Your task to perform on an android device: Show me productivity apps on the Play Store Image 0: 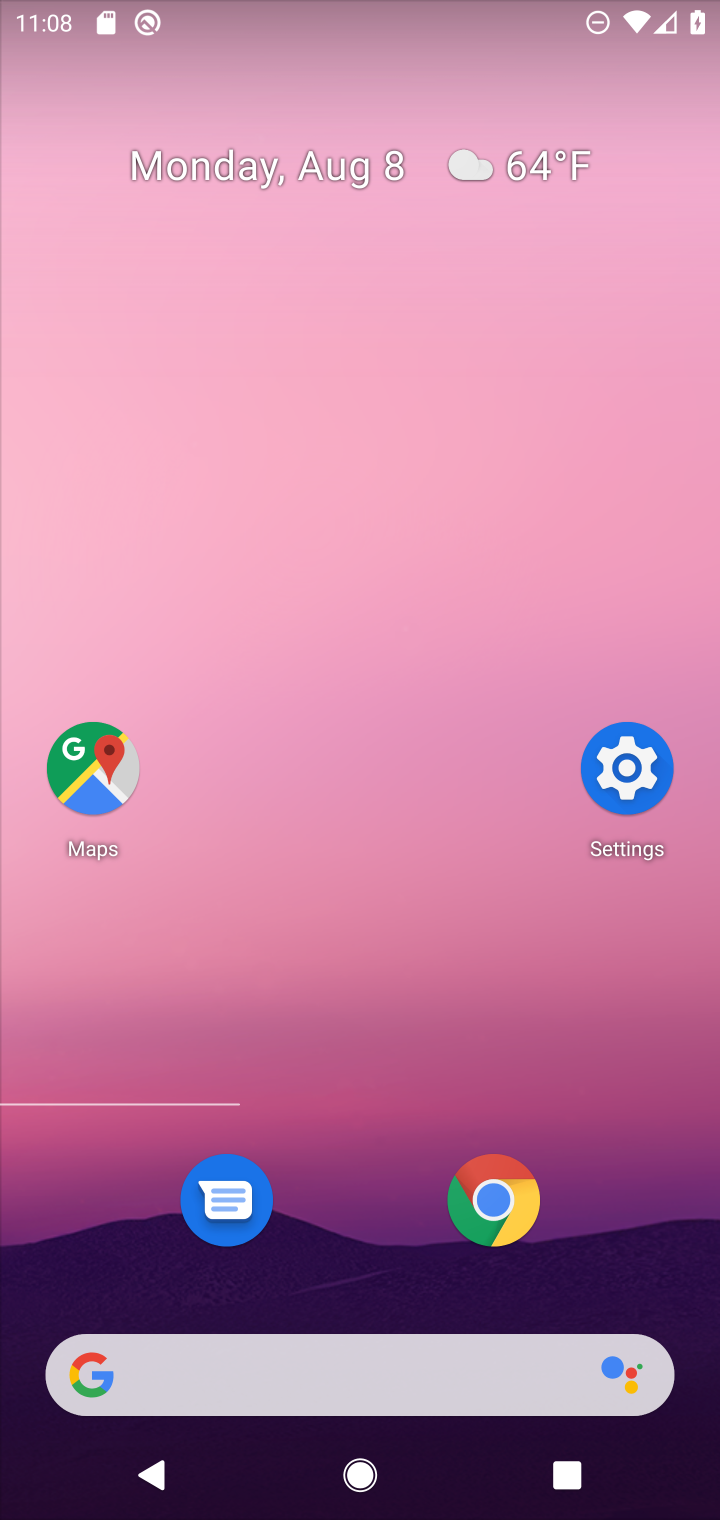
Step 0: press home button
Your task to perform on an android device: Show me productivity apps on the Play Store Image 1: 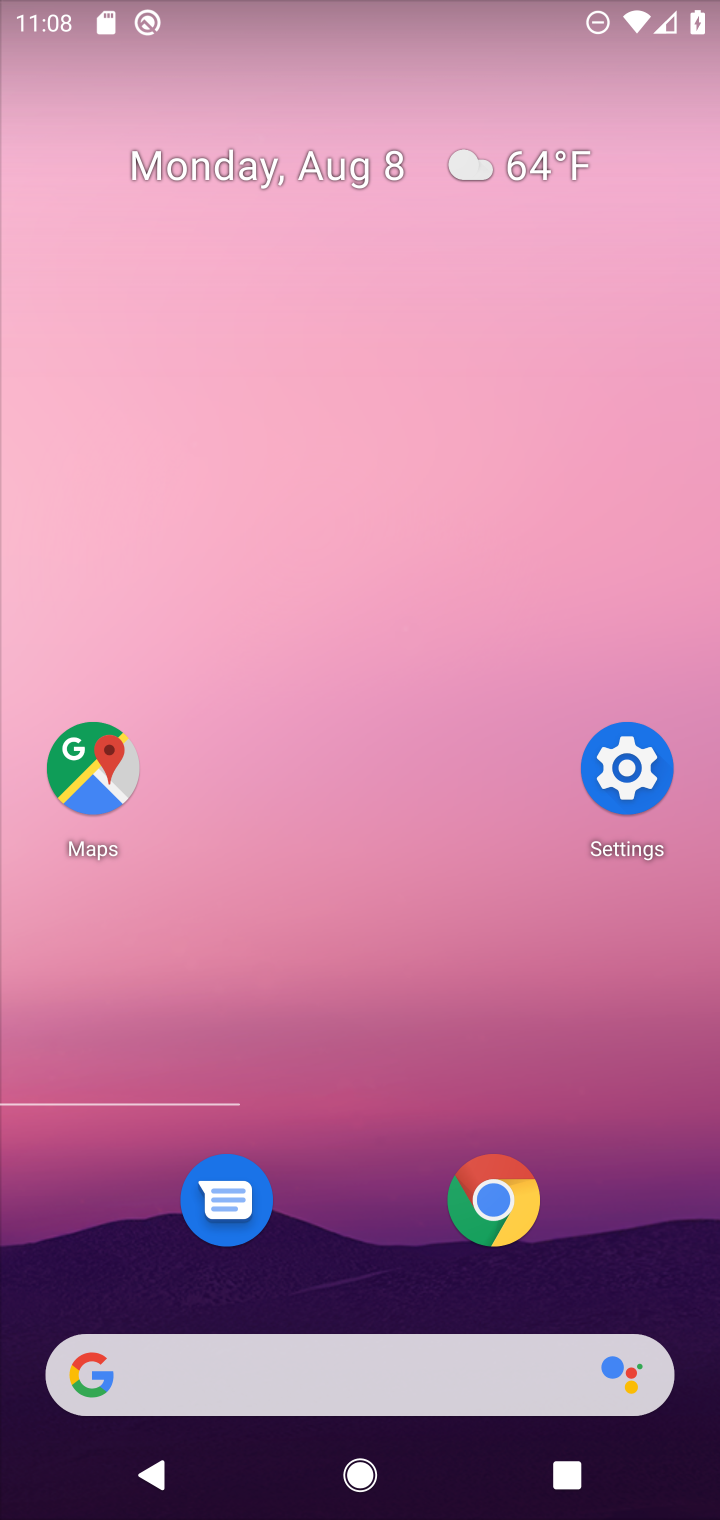
Step 1: drag from (262, 1376) to (408, 507)
Your task to perform on an android device: Show me productivity apps on the Play Store Image 2: 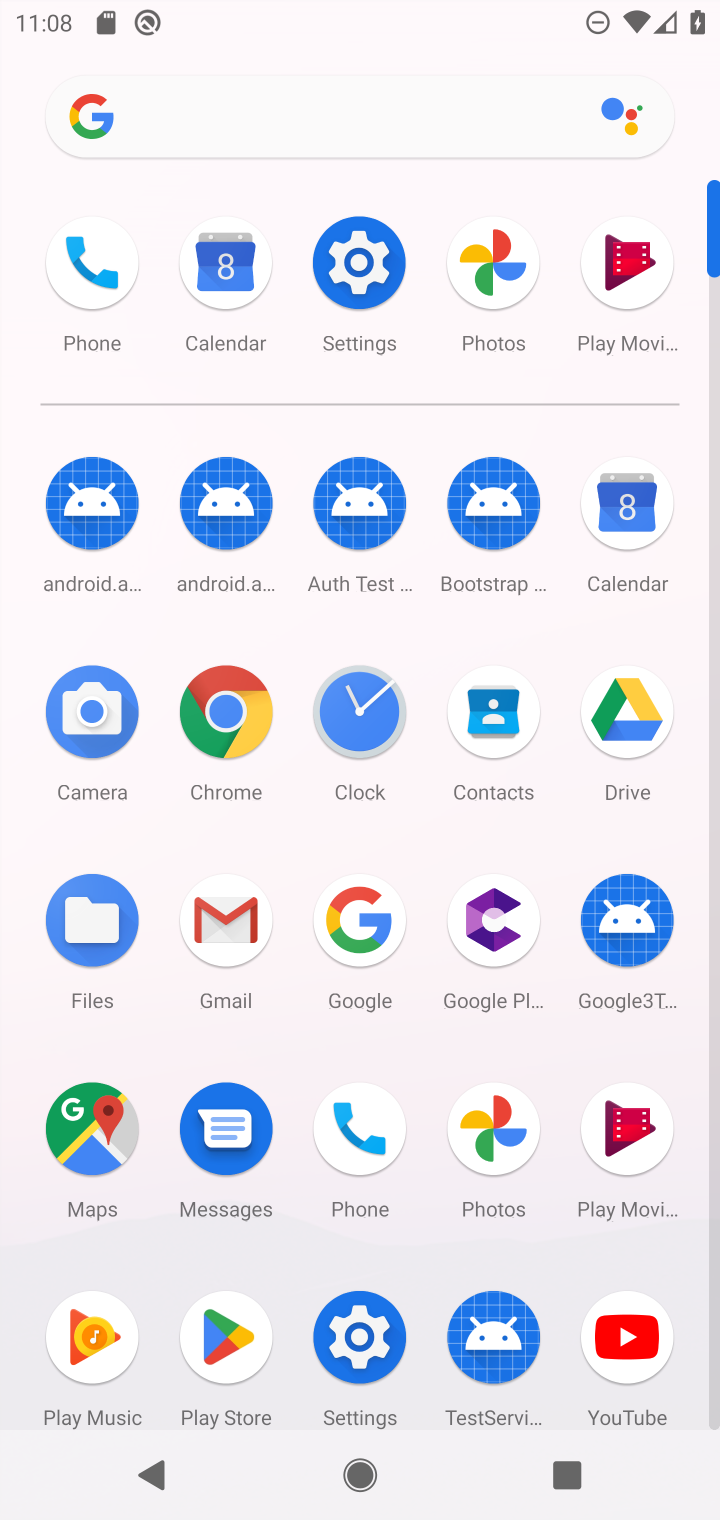
Step 2: click (225, 1341)
Your task to perform on an android device: Show me productivity apps on the Play Store Image 3: 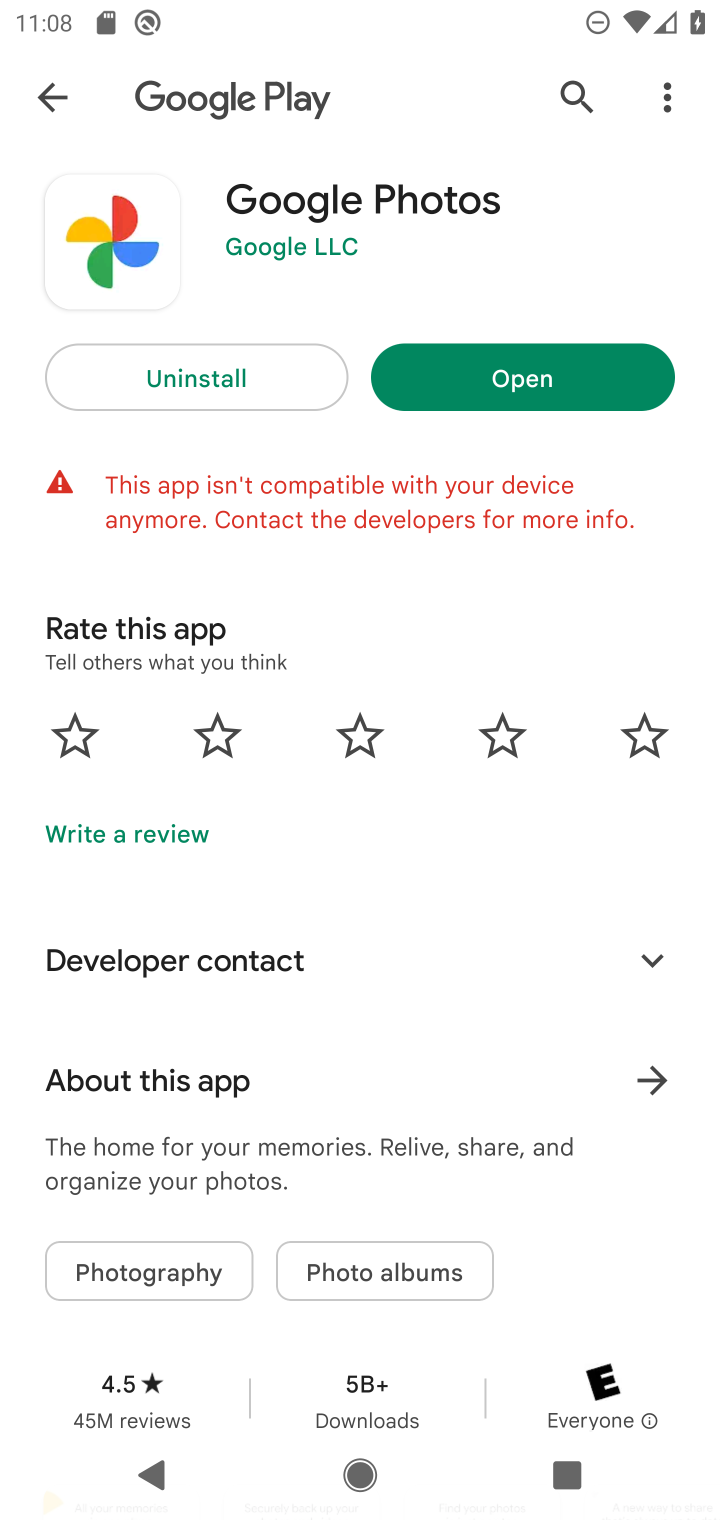
Step 3: click (50, 76)
Your task to perform on an android device: Show me productivity apps on the Play Store Image 4: 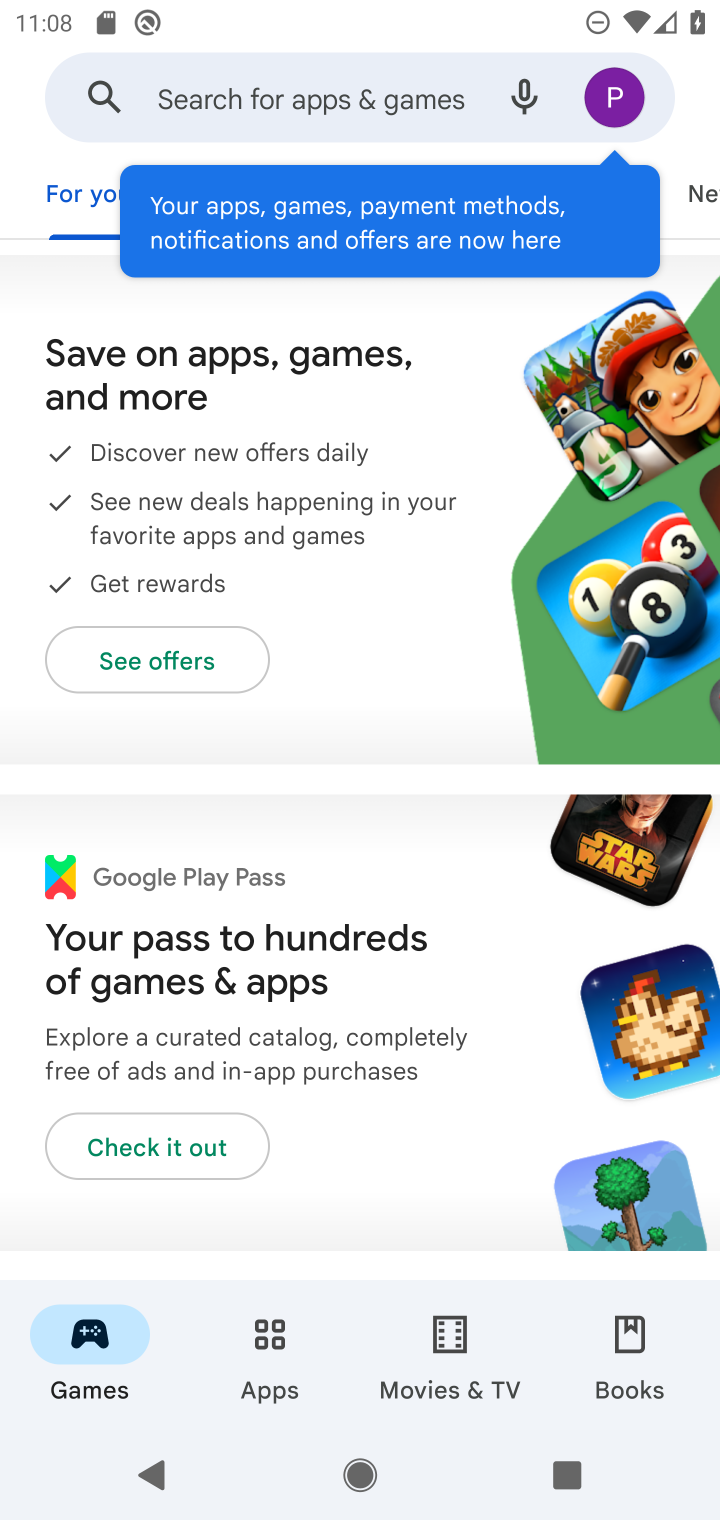
Step 4: click (266, 1342)
Your task to perform on an android device: Show me productivity apps on the Play Store Image 5: 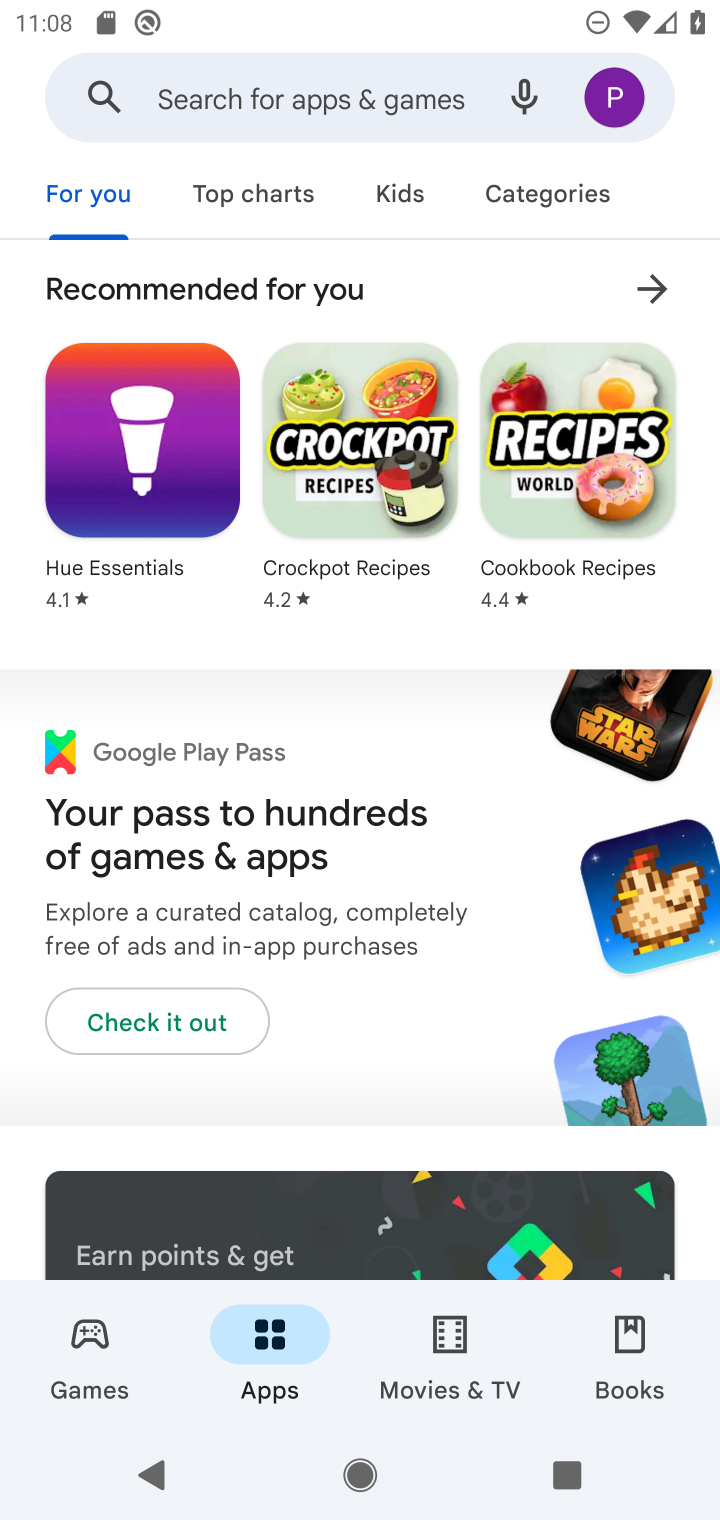
Step 5: click (556, 196)
Your task to perform on an android device: Show me productivity apps on the Play Store Image 6: 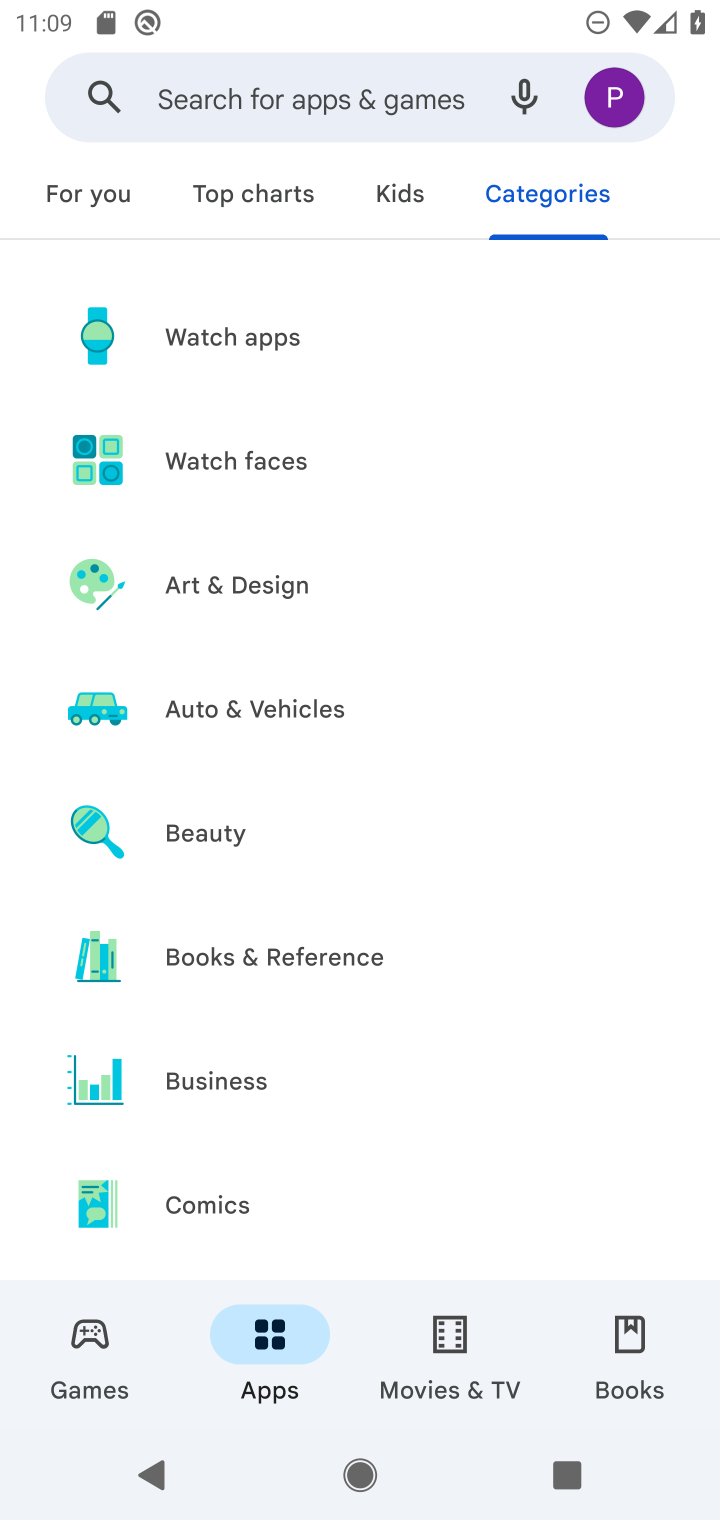
Step 6: drag from (423, 1194) to (523, 0)
Your task to perform on an android device: Show me productivity apps on the Play Store Image 7: 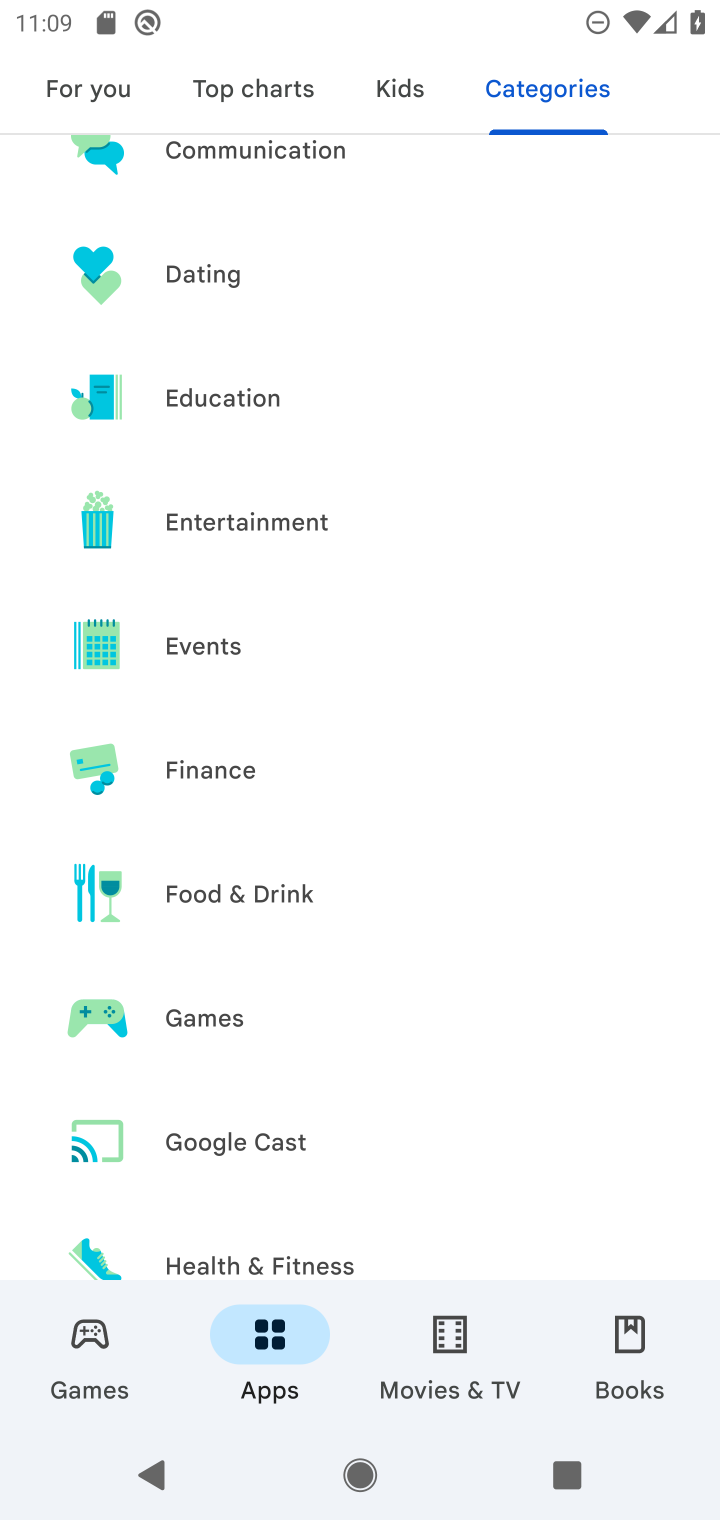
Step 7: drag from (371, 1115) to (435, 246)
Your task to perform on an android device: Show me productivity apps on the Play Store Image 8: 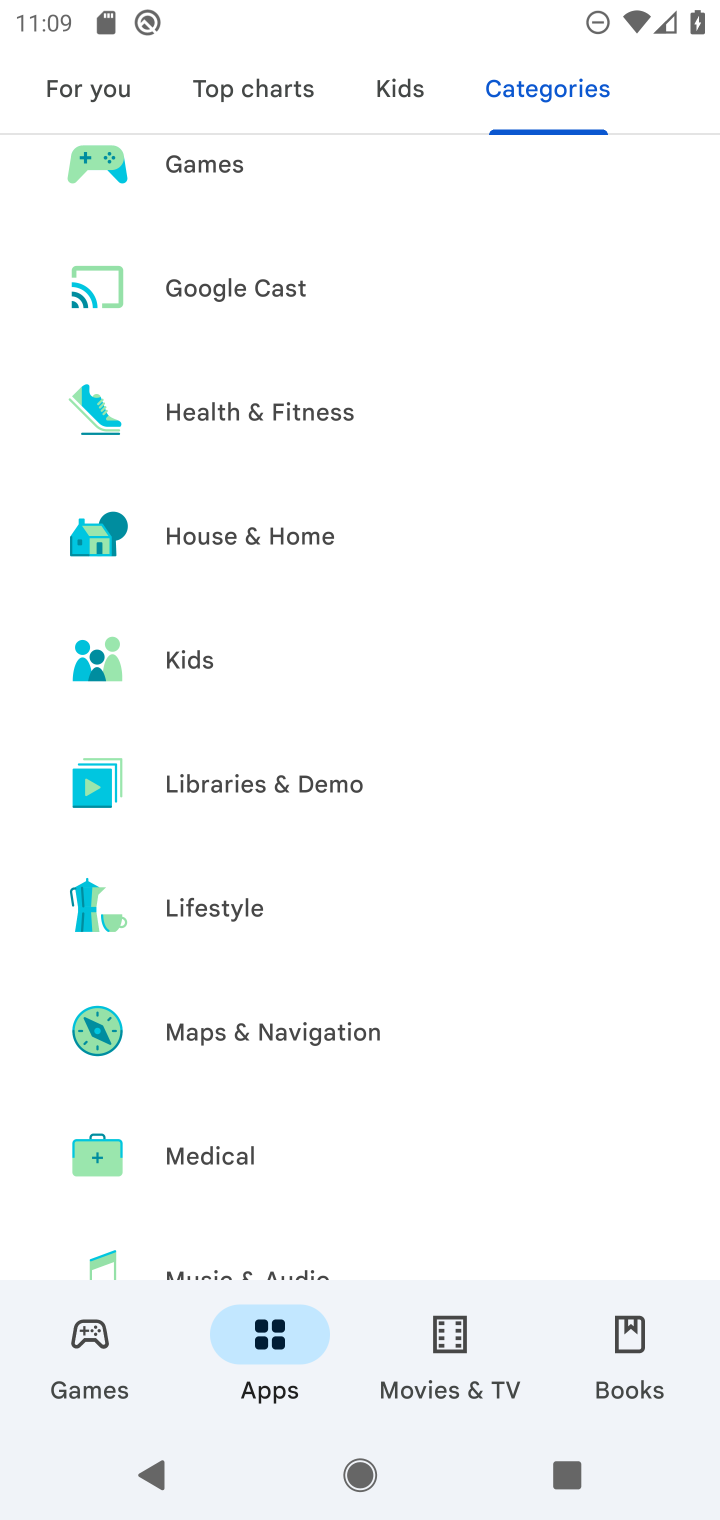
Step 8: drag from (435, 1142) to (501, 212)
Your task to perform on an android device: Show me productivity apps on the Play Store Image 9: 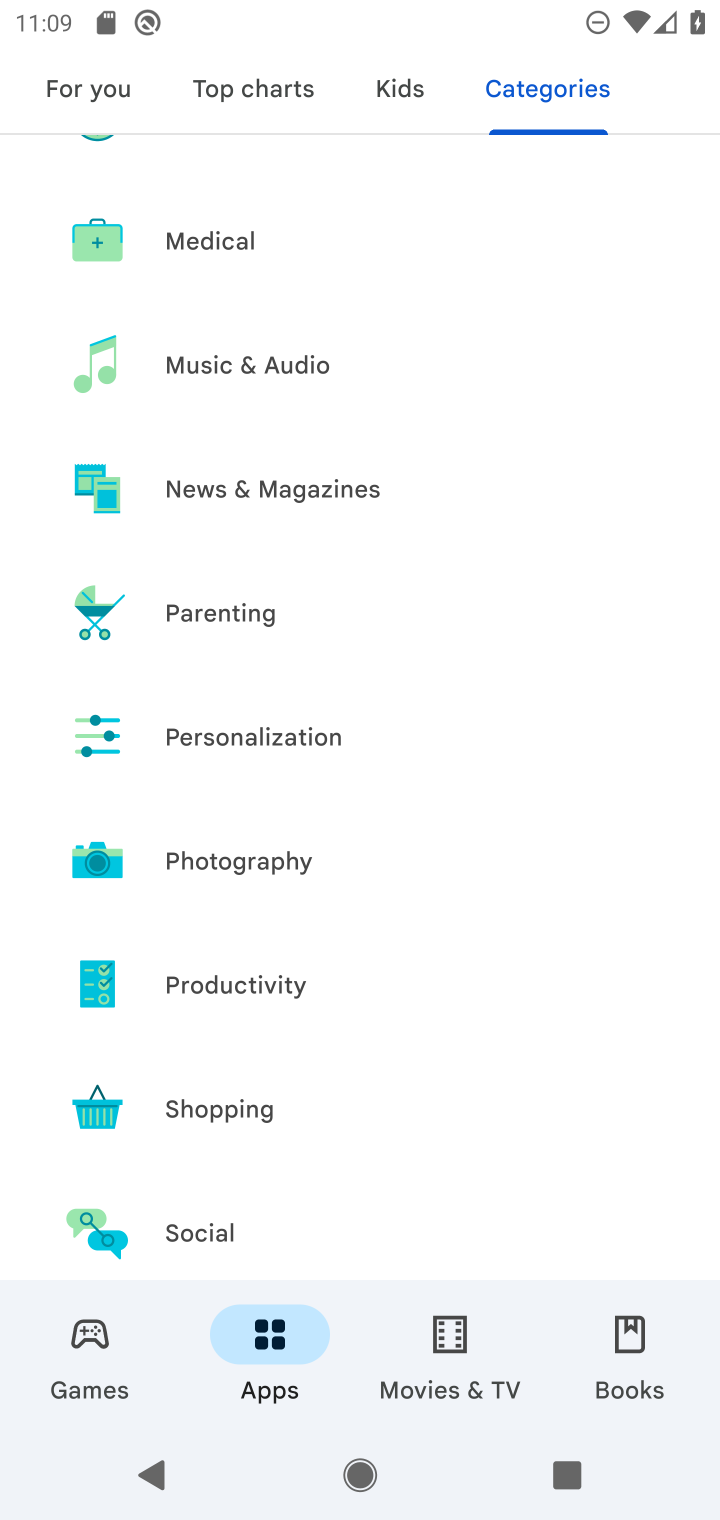
Step 9: click (275, 989)
Your task to perform on an android device: Show me productivity apps on the Play Store Image 10: 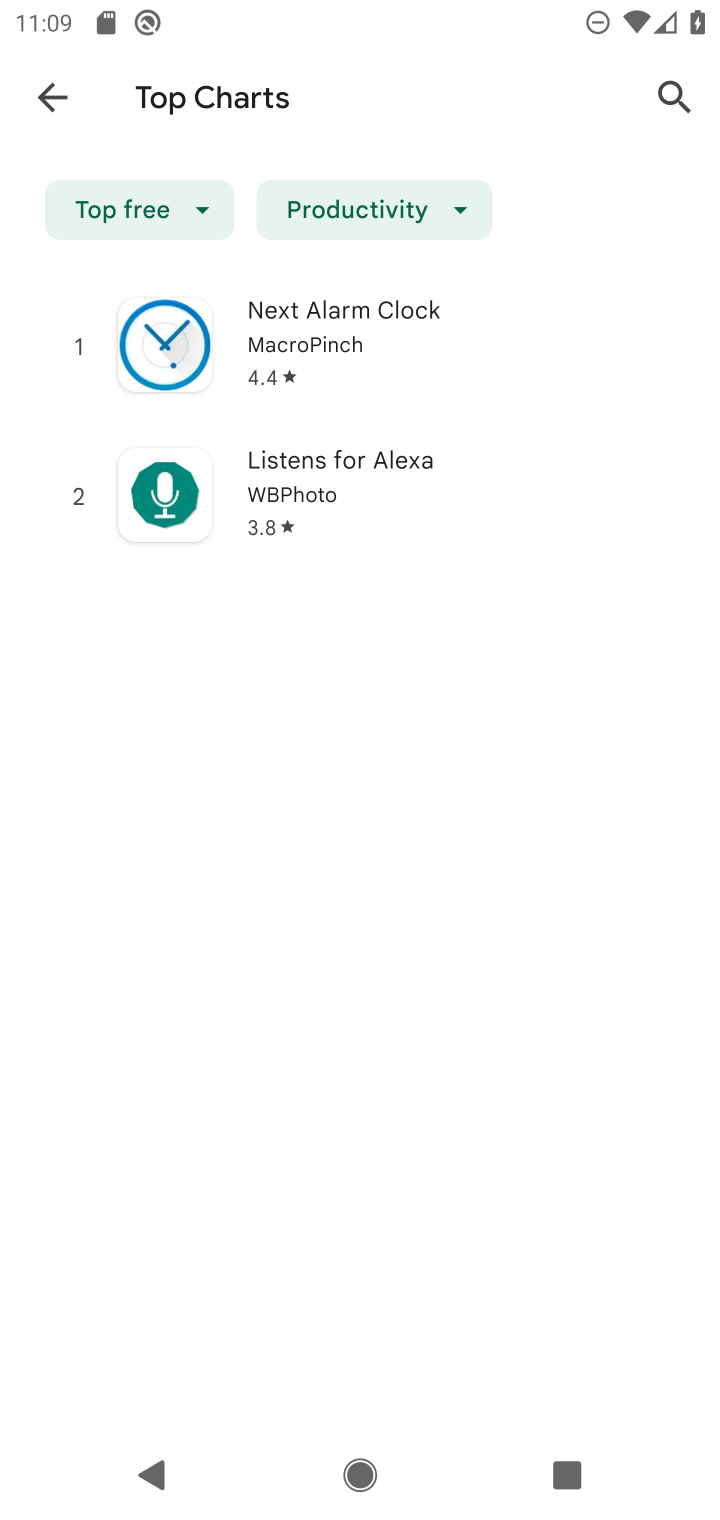
Step 10: task complete